Your task to perform on an android device: uninstall "PUBG MOBILE" Image 0: 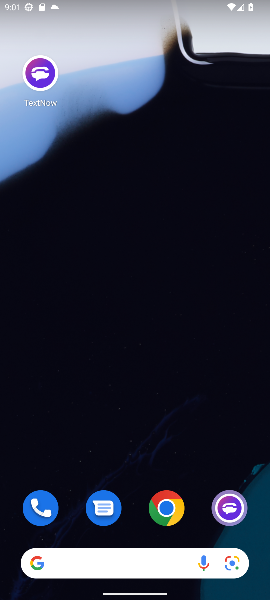
Step 0: drag from (111, 529) to (149, 30)
Your task to perform on an android device: uninstall "PUBG MOBILE" Image 1: 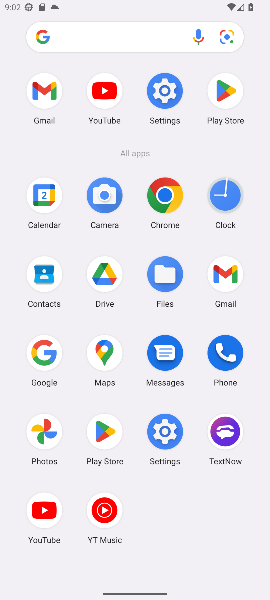
Step 1: click (238, 85)
Your task to perform on an android device: uninstall "PUBG MOBILE" Image 2: 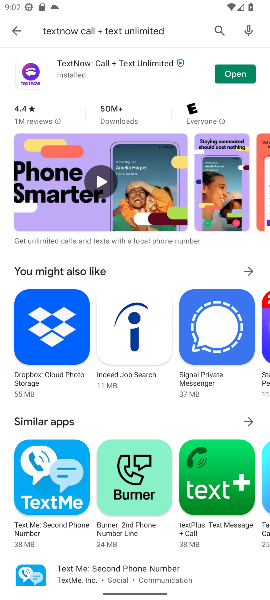
Step 2: click (19, 30)
Your task to perform on an android device: uninstall "PUBG MOBILE" Image 3: 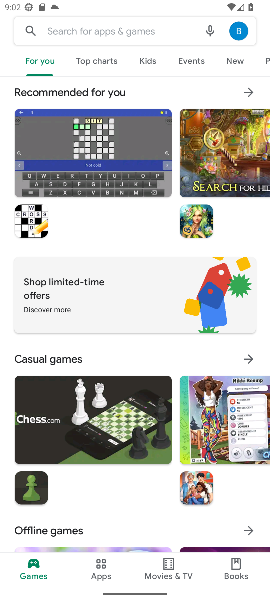
Step 3: click (155, 34)
Your task to perform on an android device: uninstall "PUBG MOBILE" Image 4: 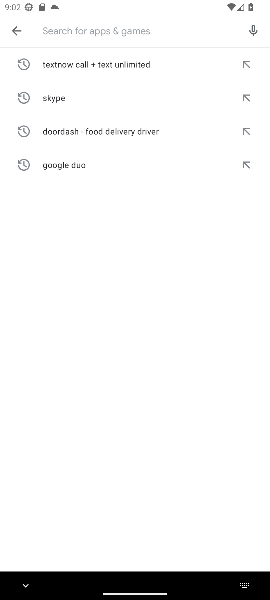
Step 4: type "PUBG MOBILE"
Your task to perform on an android device: uninstall "PUBG MOBILE" Image 5: 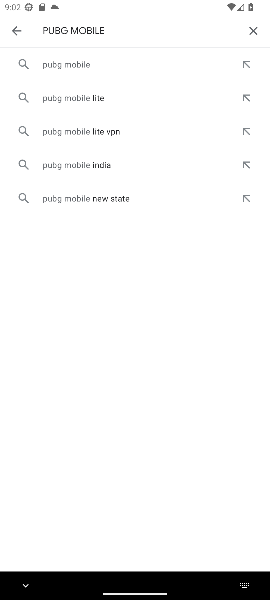
Step 5: click (92, 64)
Your task to perform on an android device: uninstall "PUBG MOBILE" Image 6: 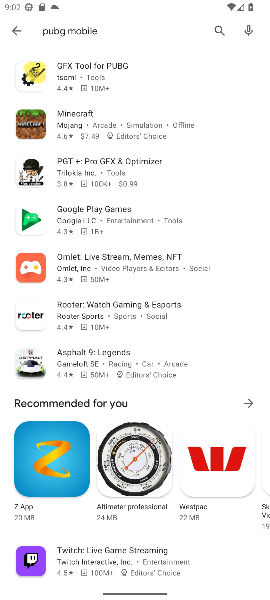
Step 6: click (128, 77)
Your task to perform on an android device: uninstall "PUBG MOBILE" Image 7: 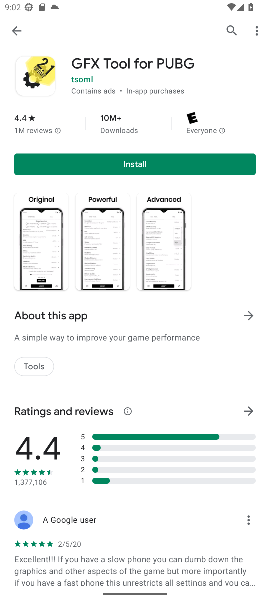
Step 7: click (9, 31)
Your task to perform on an android device: uninstall "PUBG MOBILE" Image 8: 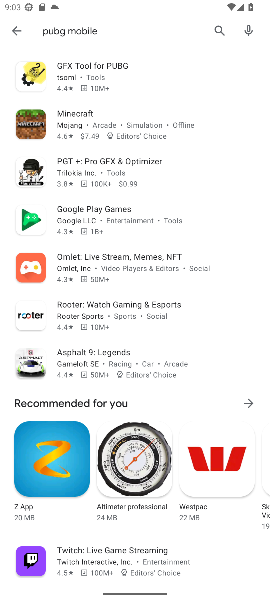
Step 8: click (16, 29)
Your task to perform on an android device: uninstall "PUBG MOBILE" Image 9: 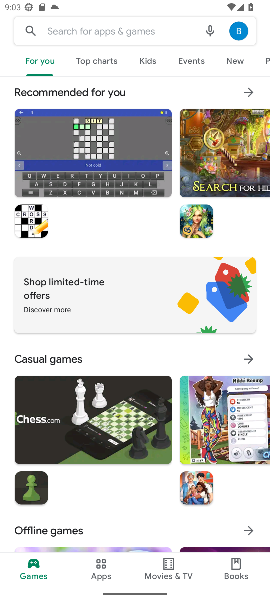
Step 9: task complete